Your task to perform on an android device: What is the recent news? Image 0: 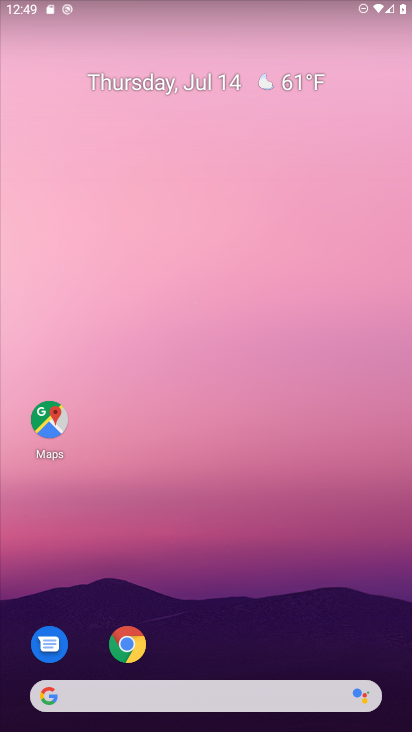
Step 0: drag from (273, 576) to (245, 57)
Your task to perform on an android device: What is the recent news? Image 1: 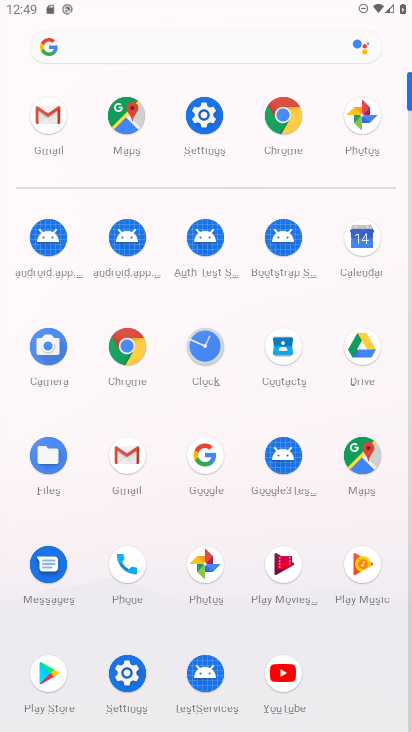
Step 1: click (121, 348)
Your task to perform on an android device: What is the recent news? Image 2: 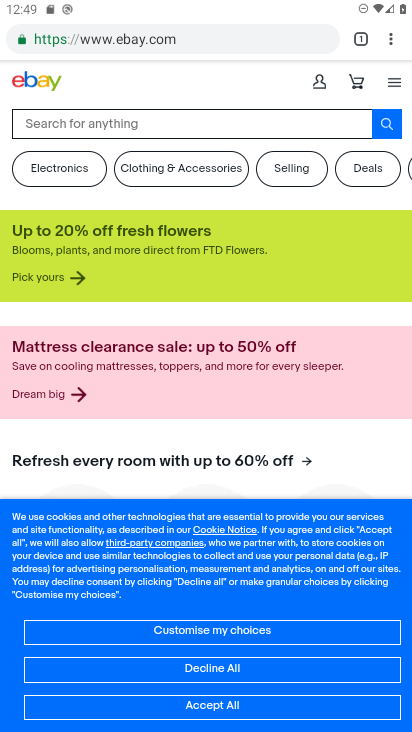
Step 2: click (225, 38)
Your task to perform on an android device: What is the recent news? Image 3: 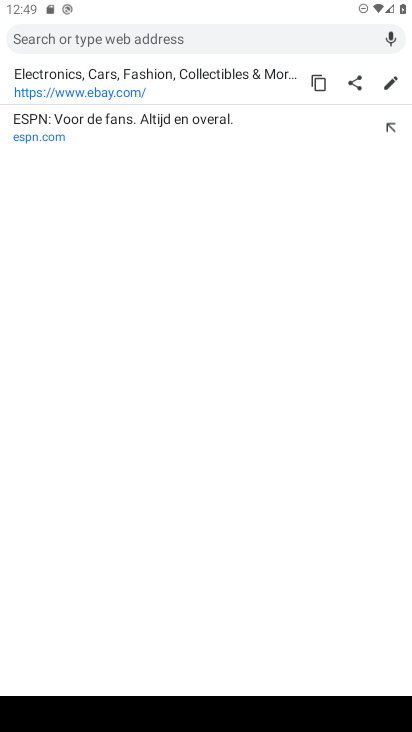
Step 3: type "news"
Your task to perform on an android device: What is the recent news? Image 4: 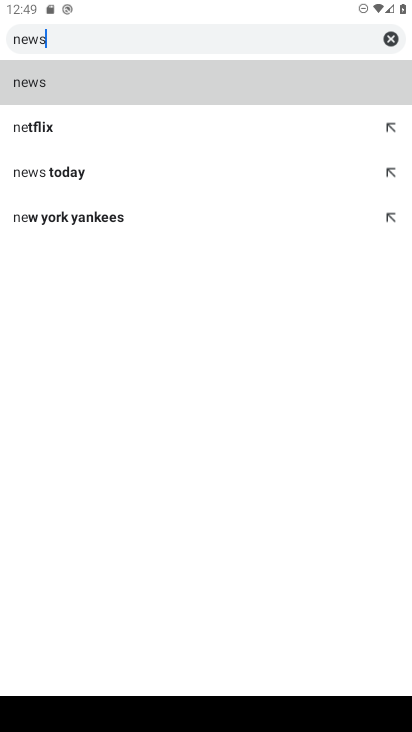
Step 4: type ""
Your task to perform on an android device: What is the recent news? Image 5: 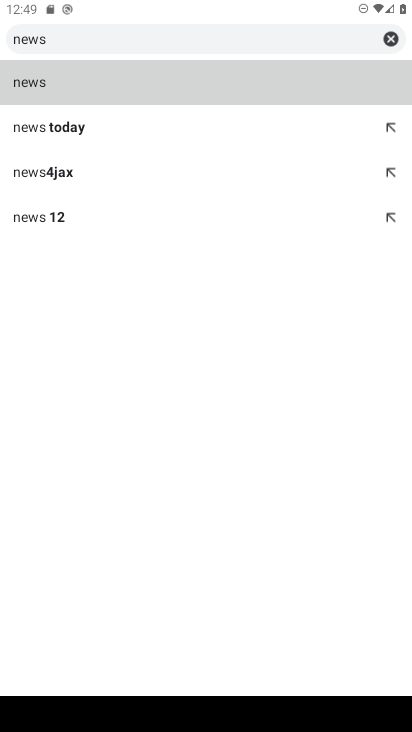
Step 5: click (68, 90)
Your task to perform on an android device: What is the recent news? Image 6: 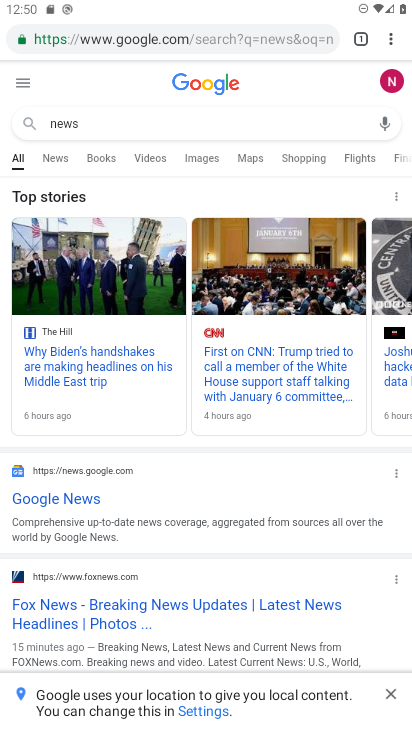
Step 6: click (75, 506)
Your task to perform on an android device: What is the recent news? Image 7: 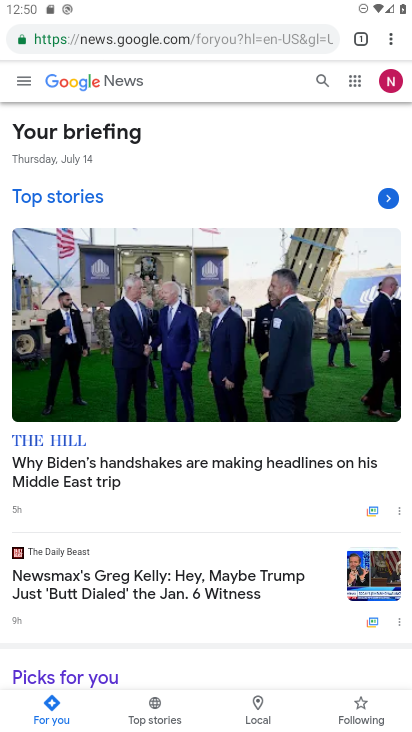
Step 7: task complete